Your task to perform on an android device: Go to Amazon Image 0: 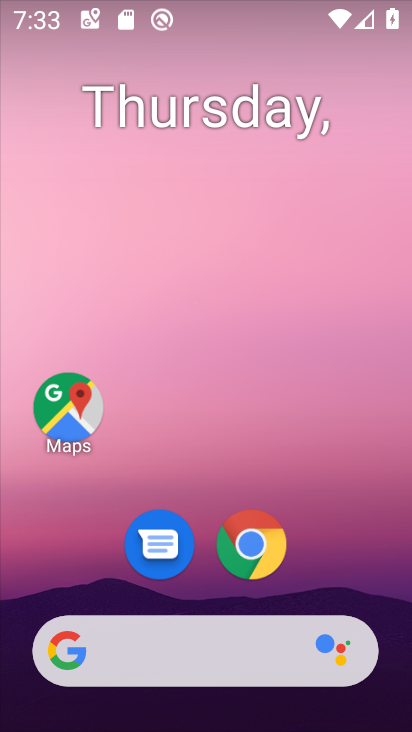
Step 0: drag from (227, 693) to (181, 304)
Your task to perform on an android device: Go to Amazon Image 1: 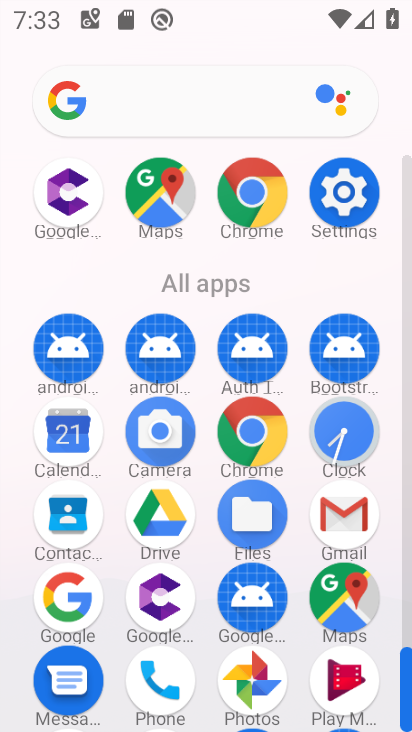
Step 1: click (254, 205)
Your task to perform on an android device: Go to Amazon Image 2: 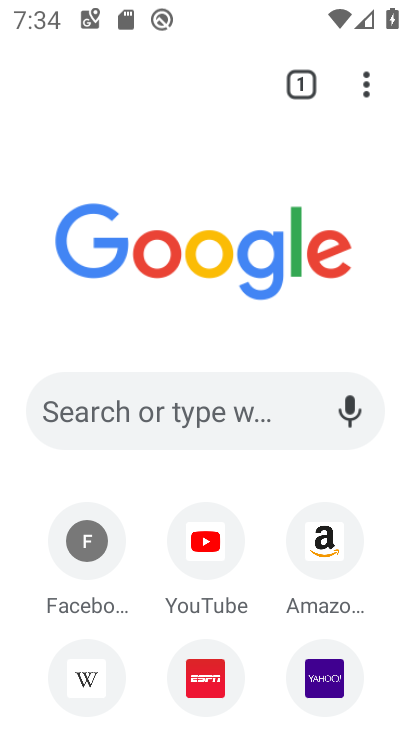
Step 2: click (368, 87)
Your task to perform on an android device: Go to Amazon Image 3: 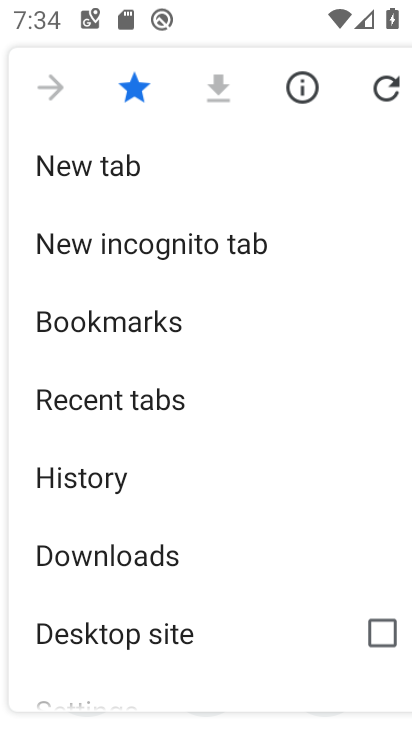
Step 3: press back button
Your task to perform on an android device: Go to Amazon Image 4: 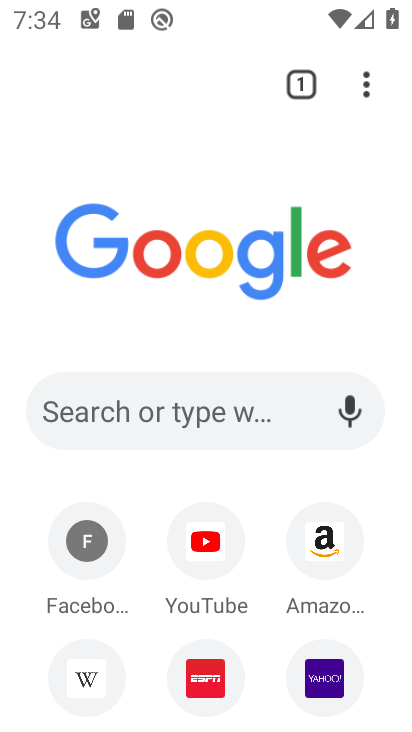
Step 4: click (321, 552)
Your task to perform on an android device: Go to Amazon Image 5: 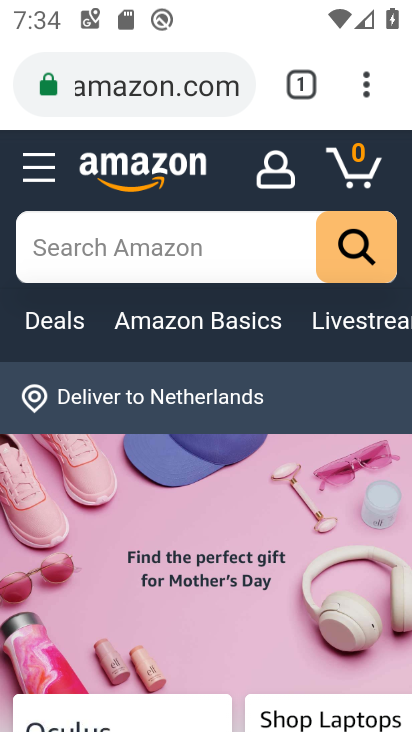
Step 5: task complete